Your task to perform on an android device: change keyboard looks Image 0: 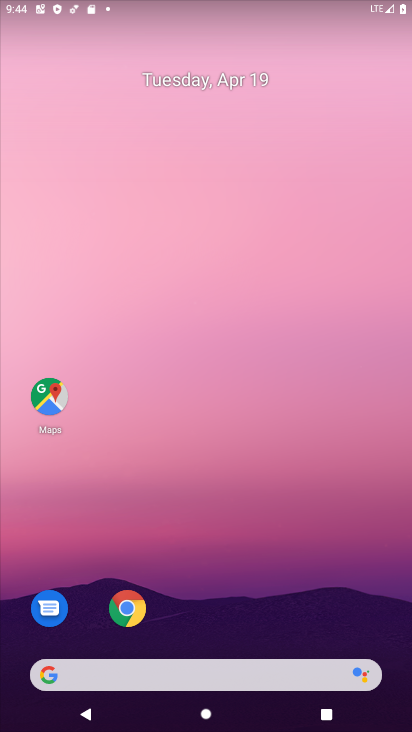
Step 0: drag from (365, 530) to (328, 131)
Your task to perform on an android device: change keyboard looks Image 1: 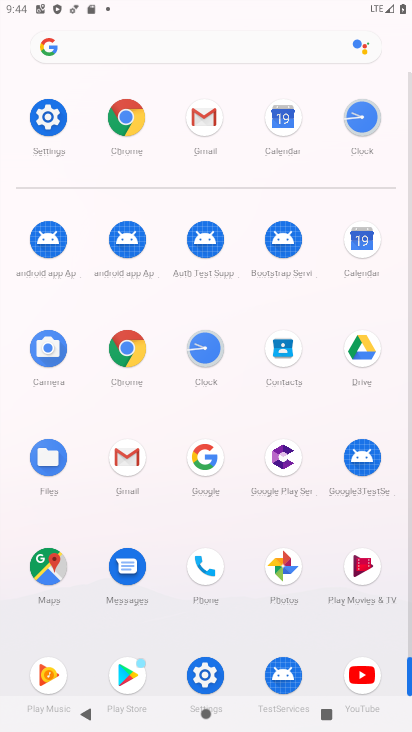
Step 1: click (202, 676)
Your task to perform on an android device: change keyboard looks Image 2: 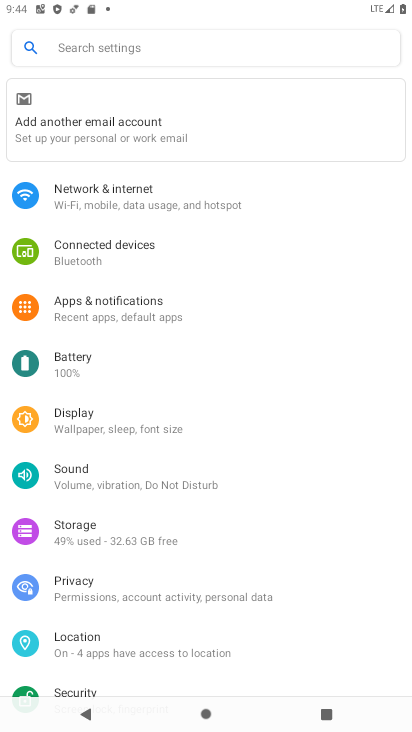
Step 2: drag from (288, 526) to (290, 276)
Your task to perform on an android device: change keyboard looks Image 3: 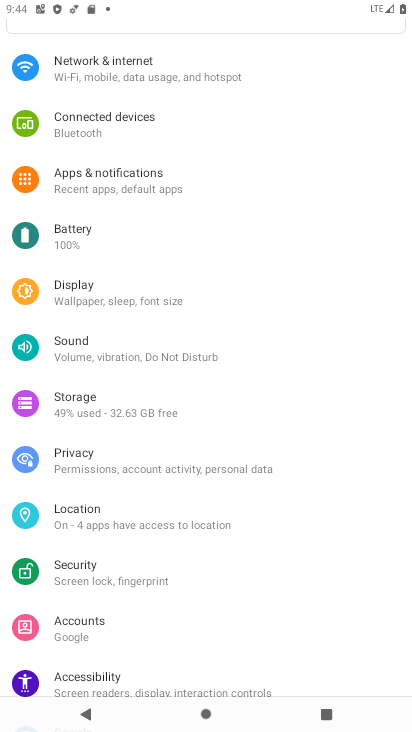
Step 3: drag from (279, 603) to (307, 285)
Your task to perform on an android device: change keyboard looks Image 4: 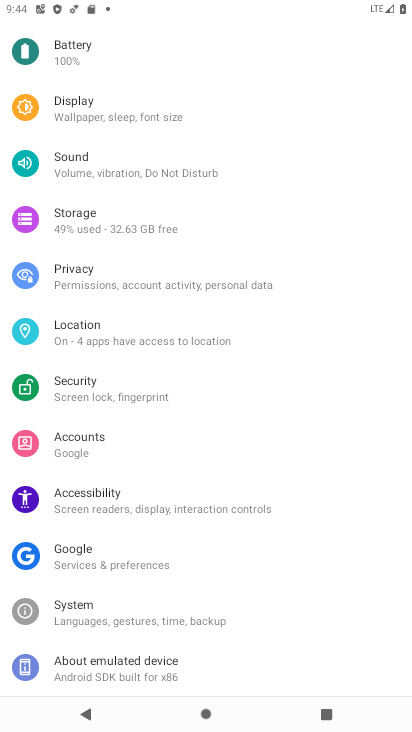
Step 4: click (69, 612)
Your task to perform on an android device: change keyboard looks Image 5: 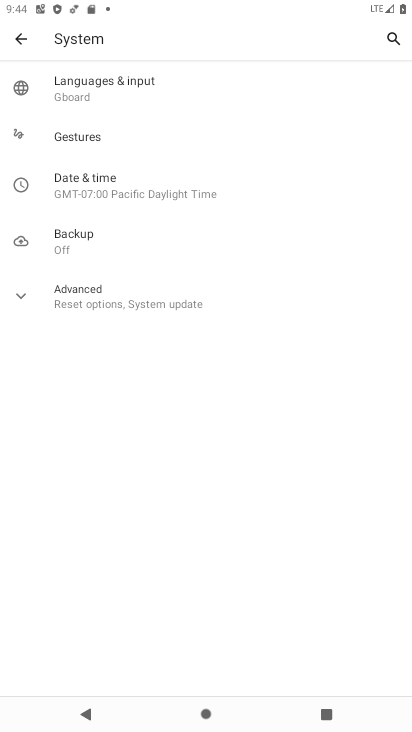
Step 5: click (84, 86)
Your task to perform on an android device: change keyboard looks Image 6: 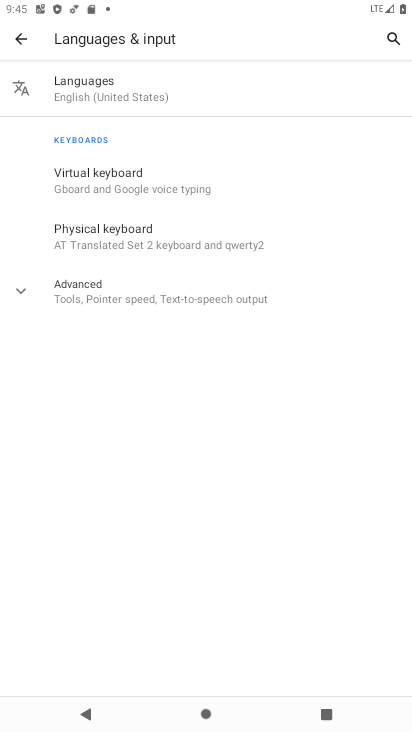
Step 6: click (105, 241)
Your task to perform on an android device: change keyboard looks Image 7: 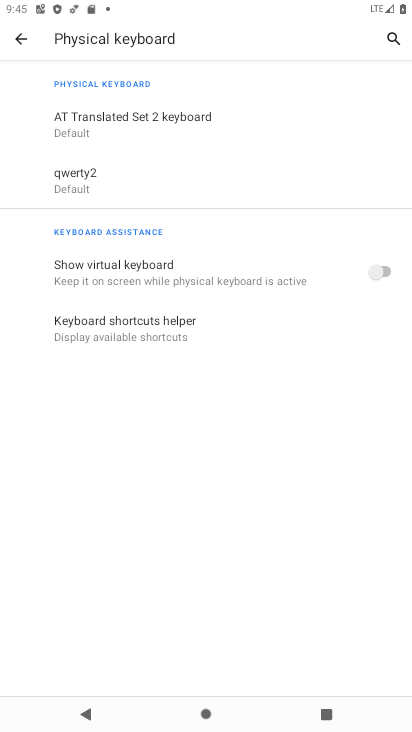
Step 7: click (74, 173)
Your task to perform on an android device: change keyboard looks Image 8: 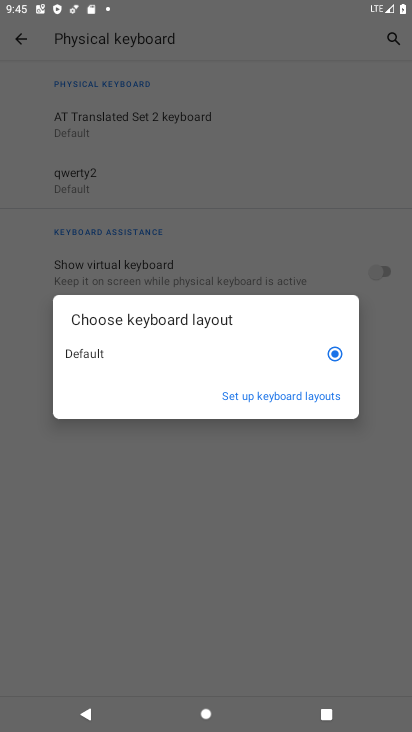
Step 8: click (283, 401)
Your task to perform on an android device: change keyboard looks Image 9: 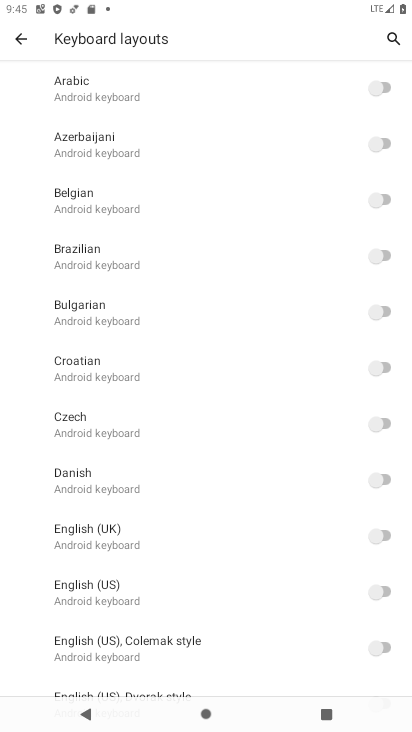
Step 9: click (385, 536)
Your task to perform on an android device: change keyboard looks Image 10: 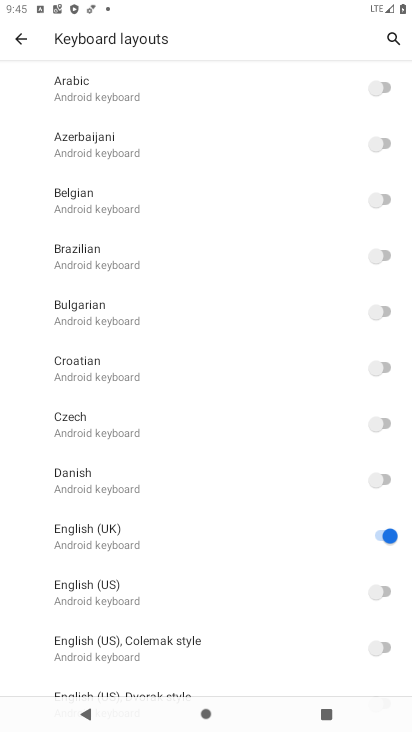
Step 10: task complete